Your task to perform on an android device: Show me popular games on the Play Store Image 0: 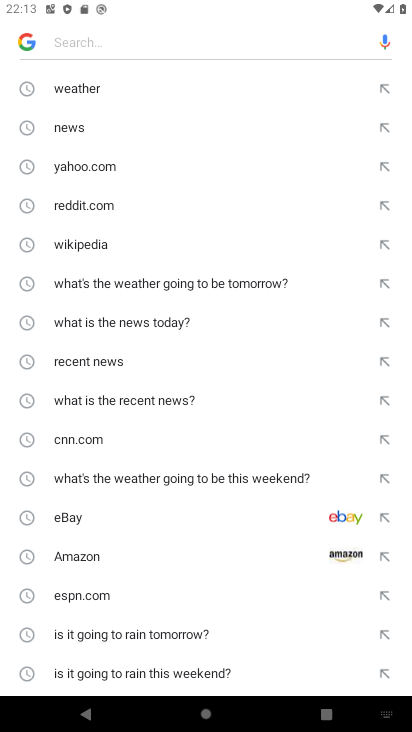
Step 0: press home button
Your task to perform on an android device: Show me popular games on the Play Store Image 1: 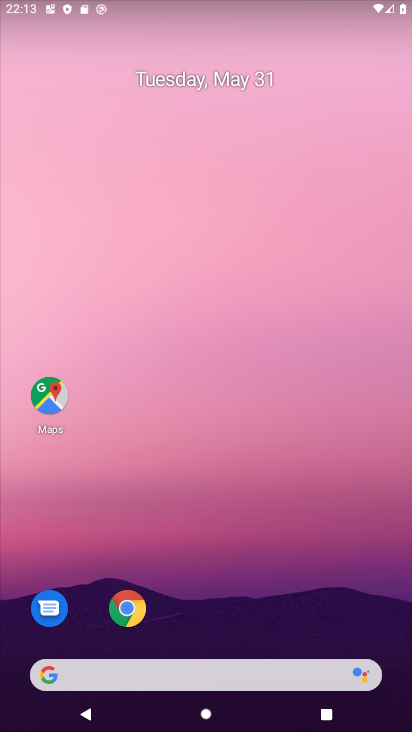
Step 1: drag from (204, 642) to (131, 91)
Your task to perform on an android device: Show me popular games on the Play Store Image 2: 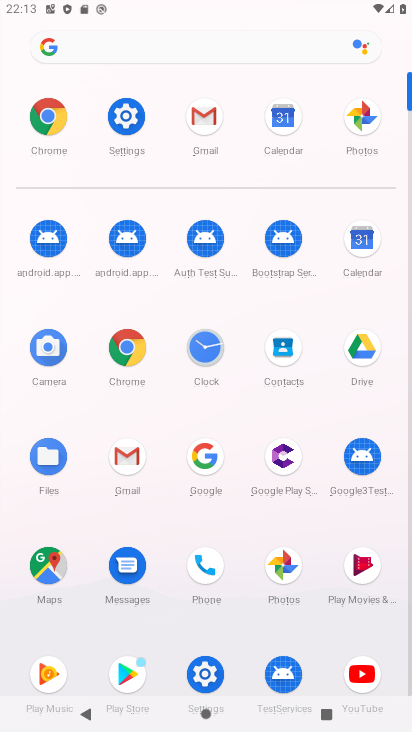
Step 2: click (126, 671)
Your task to perform on an android device: Show me popular games on the Play Store Image 3: 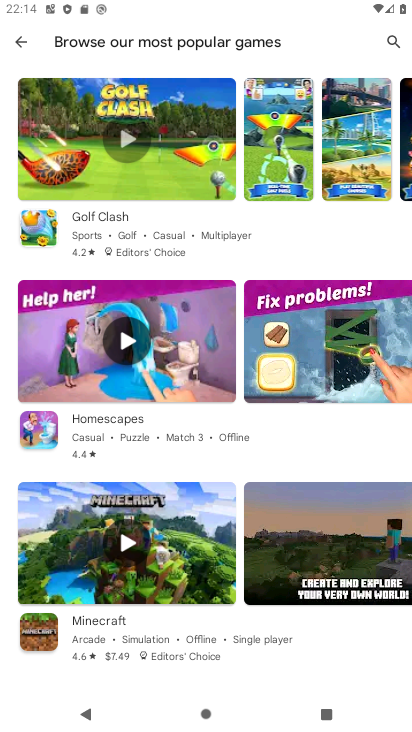
Step 3: task complete